Your task to perform on an android device: Go to Yahoo.com Image 0: 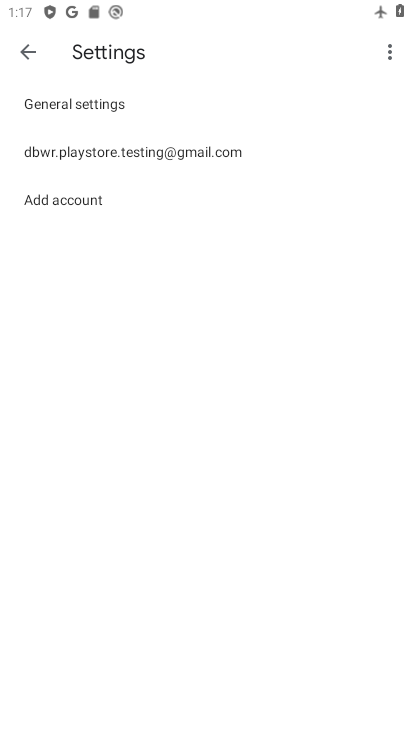
Step 0: press home button
Your task to perform on an android device: Go to Yahoo.com Image 1: 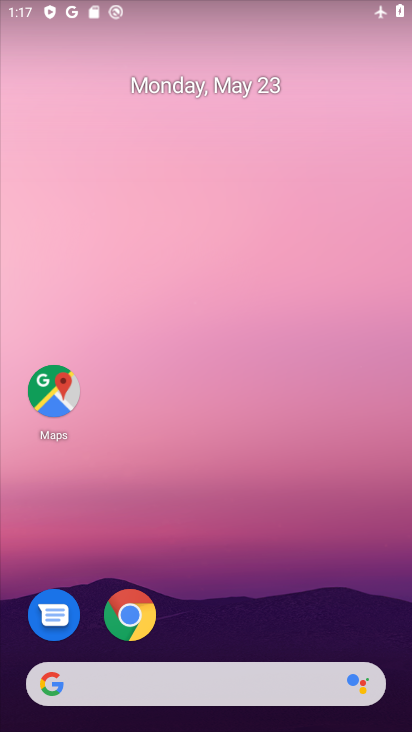
Step 1: click (133, 619)
Your task to perform on an android device: Go to Yahoo.com Image 2: 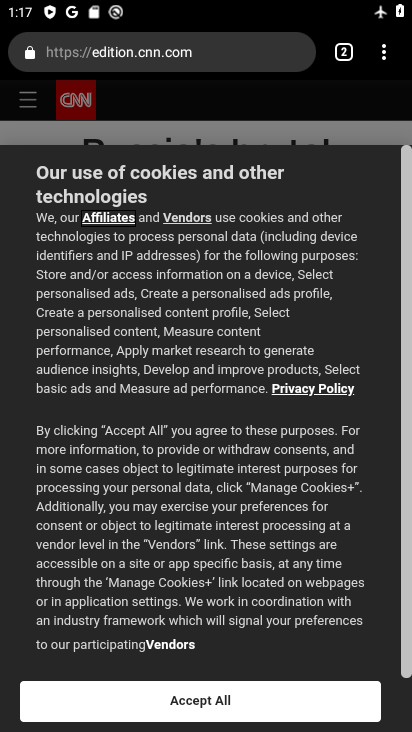
Step 2: click (331, 56)
Your task to perform on an android device: Go to Yahoo.com Image 3: 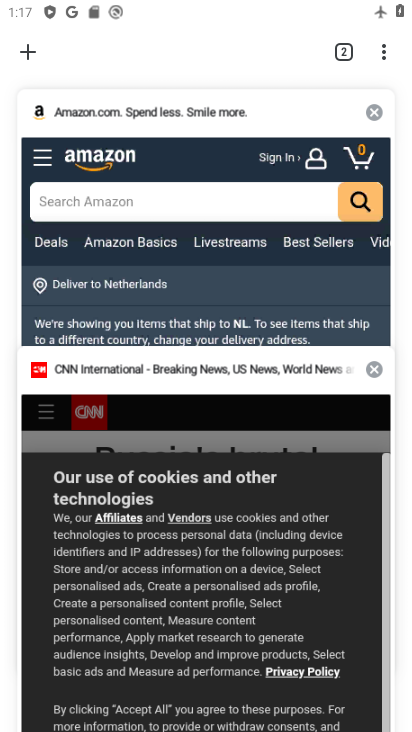
Step 3: click (30, 49)
Your task to perform on an android device: Go to Yahoo.com Image 4: 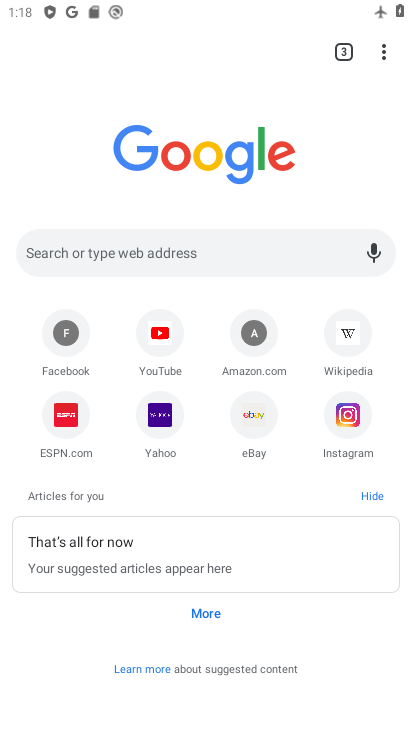
Step 4: click (152, 427)
Your task to perform on an android device: Go to Yahoo.com Image 5: 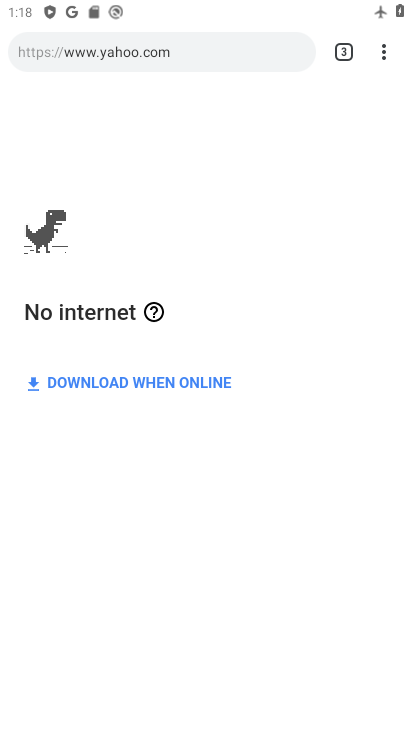
Step 5: task complete